Your task to perform on an android device: Clear all items from cart on bestbuy.com. Add usb-a to usb-b to the cart on bestbuy.com Image 0: 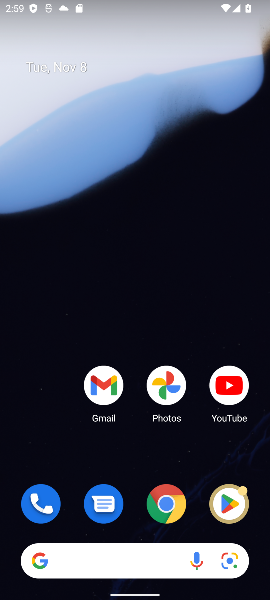
Step 0: drag from (67, 526) to (72, 42)
Your task to perform on an android device: Clear all items from cart on bestbuy.com. Add usb-a to usb-b to the cart on bestbuy.com Image 1: 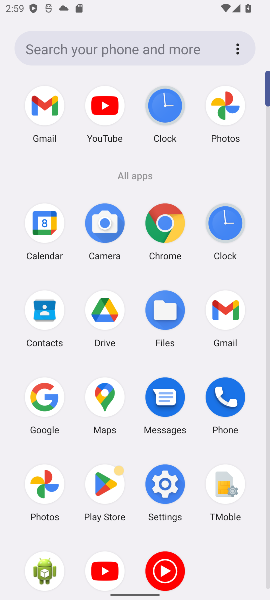
Step 1: click (171, 236)
Your task to perform on an android device: Clear all items from cart on bestbuy.com. Add usb-a to usb-b to the cart on bestbuy.com Image 2: 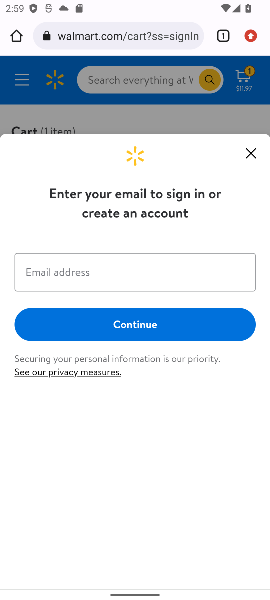
Step 2: click (103, 44)
Your task to perform on an android device: Clear all items from cart on bestbuy.com. Add usb-a to usb-b to the cart on bestbuy.com Image 3: 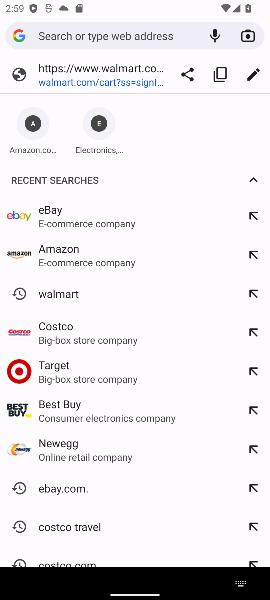
Step 3: type " bestbuy.com"
Your task to perform on an android device: Clear all items from cart on bestbuy.com. Add usb-a to usb-b to the cart on bestbuy.com Image 4: 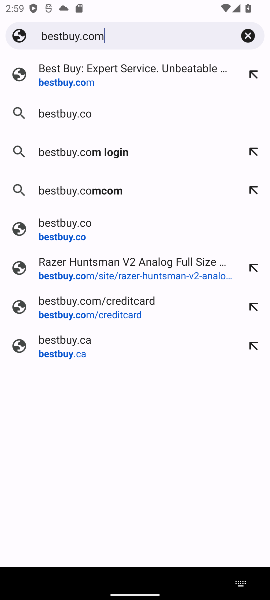
Step 4: press enter
Your task to perform on an android device: Clear all items from cart on bestbuy.com. Add usb-a to usb-b to the cart on bestbuy.com Image 5: 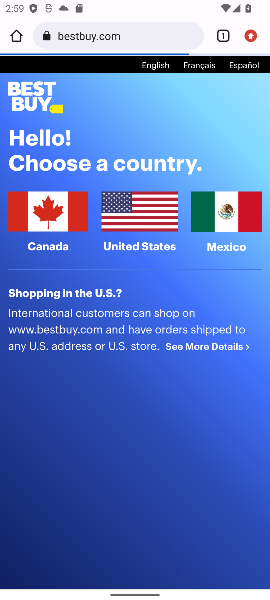
Step 5: click (29, 217)
Your task to perform on an android device: Clear all items from cart on bestbuy.com. Add usb-a to usb-b to the cart on bestbuy.com Image 6: 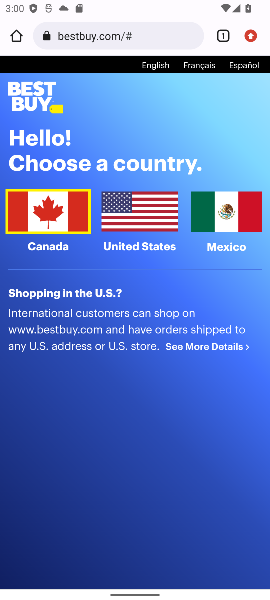
Step 6: click (31, 214)
Your task to perform on an android device: Clear all items from cart on bestbuy.com. Add usb-a to usb-b to the cart on bestbuy.com Image 7: 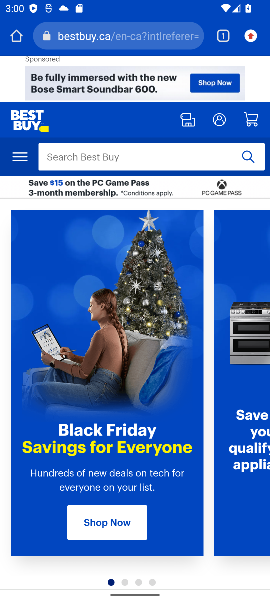
Step 7: click (256, 119)
Your task to perform on an android device: Clear all items from cart on bestbuy.com. Add usb-a to usb-b to the cart on bestbuy.com Image 8: 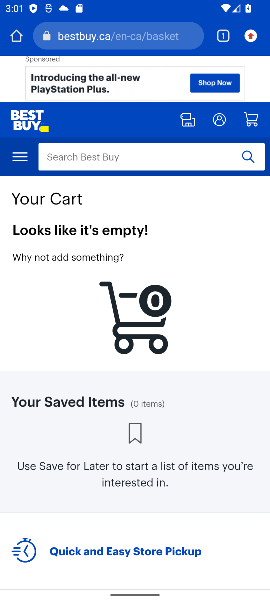
Step 8: click (144, 160)
Your task to perform on an android device: Clear all items from cart on bestbuy.com. Add usb-a to usb-b to the cart on bestbuy.com Image 9: 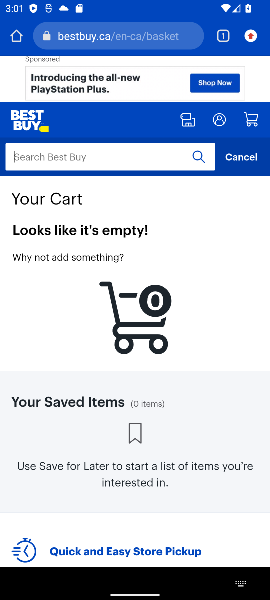
Step 9: type "usb-a to usb-b"
Your task to perform on an android device: Clear all items from cart on bestbuy.com. Add usb-a to usb-b to the cart on bestbuy.com Image 10: 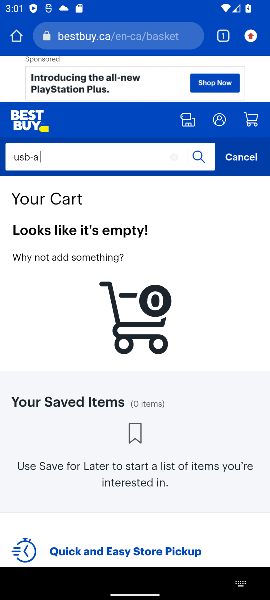
Step 10: press enter
Your task to perform on an android device: Clear all items from cart on bestbuy.com. Add usb-a to usb-b to the cart on bestbuy.com Image 11: 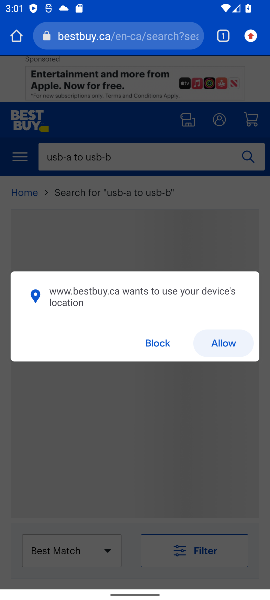
Step 11: click (221, 348)
Your task to perform on an android device: Clear all items from cart on bestbuy.com. Add usb-a to usb-b to the cart on bestbuy.com Image 12: 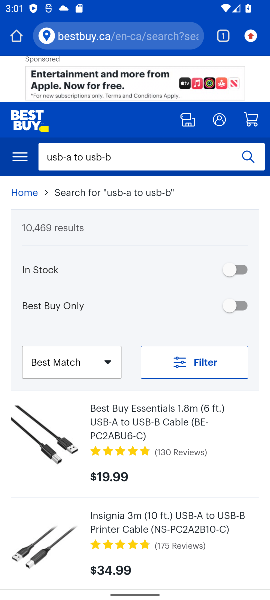
Step 12: drag from (141, 480) to (144, 238)
Your task to perform on an android device: Clear all items from cart on bestbuy.com. Add usb-a to usb-b to the cart on bestbuy.com Image 13: 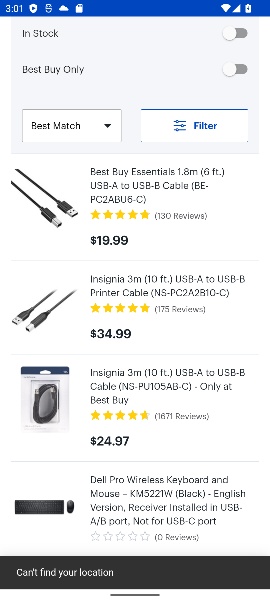
Step 13: click (109, 193)
Your task to perform on an android device: Clear all items from cart on bestbuy.com. Add usb-a to usb-b to the cart on bestbuy.com Image 14: 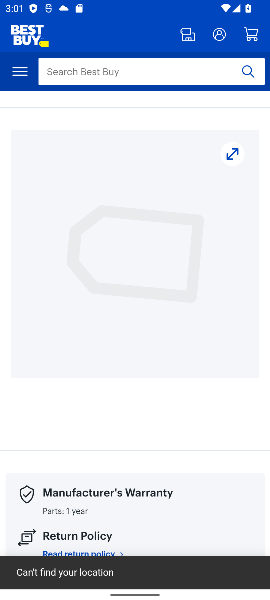
Step 14: drag from (151, 423) to (163, 164)
Your task to perform on an android device: Clear all items from cart on bestbuy.com. Add usb-a to usb-b to the cart on bestbuy.com Image 15: 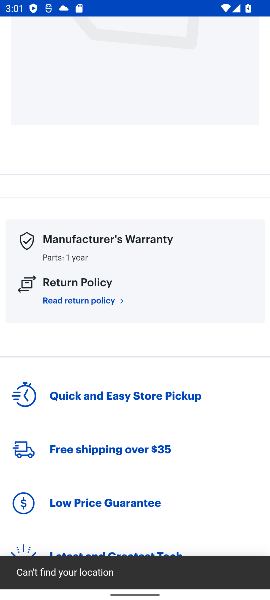
Step 15: drag from (168, 181) to (190, 422)
Your task to perform on an android device: Clear all items from cart on bestbuy.com. Add usb-a to usb-b to the cart on bestbuy.com Image 16: 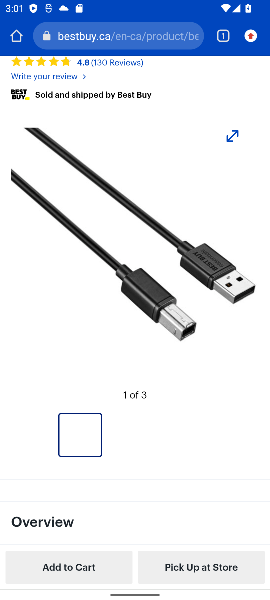
Step 16: drag from (175, 454) to (171, 227)
Your task to perform on an android device: Clear all items from cart on bestbuy.com. Add usb-a to usb-b to the cart on bestbuy.com Image 17: 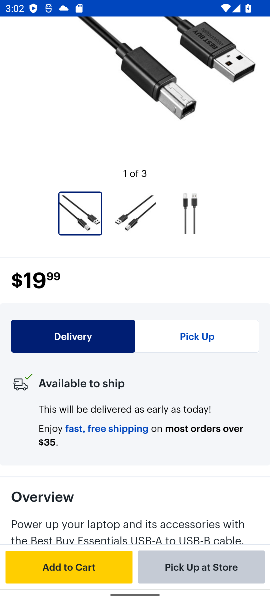
Step 17: click (73, 569)
Your task to perform on an android device: Clear all items from cart on bestbuy.com. Add usb-a to usb-b to the cart on bestbuy.com Image 18: 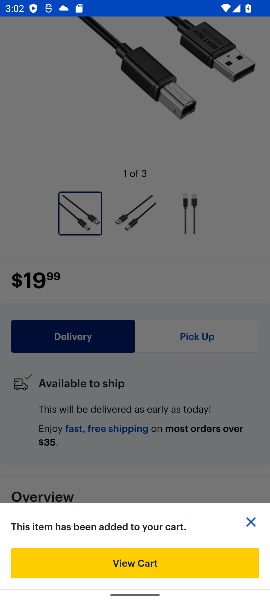
Step 18: click (112, 560)
Your task to perform on an android device: Clear all items from cart on bestbuy.com. Add usb-a to usb-b to the cart on bestbuy.com Image 19: 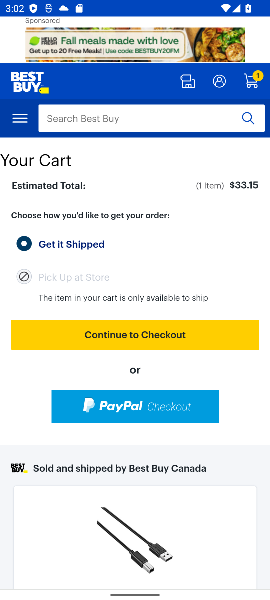
Step 19: click (175, 333)
Your task to perform on an android device: Clear all items from cart on bestbuy.com. Add usb-a to usb-b to the cart on bestbuy.com Image 20: 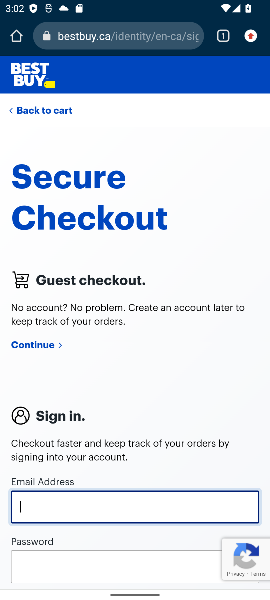
Step 20: task complete